Your task to perform on an android device: What's on my calendar tomorrow? Image 0: 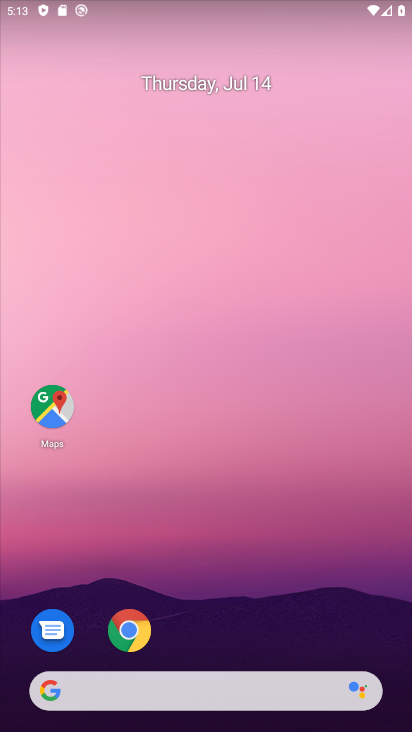
Step 0: press home button
Your task to perform on an android device: What's on my calendar tomorrow? Image 1: 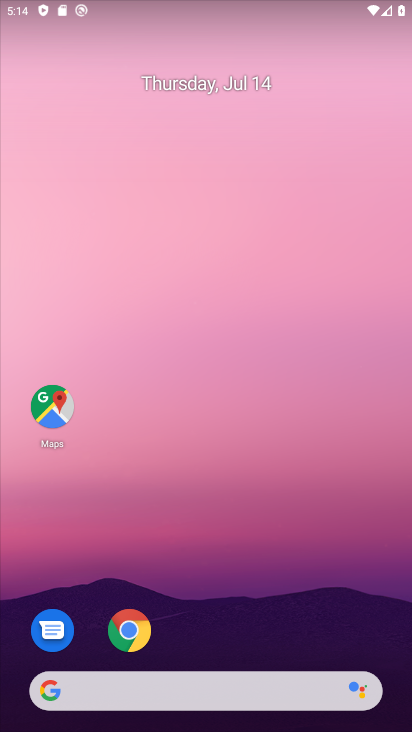
Step 1: press home button
Your task to perform on an android device: What's on my calendar tomorrow? Image 2: 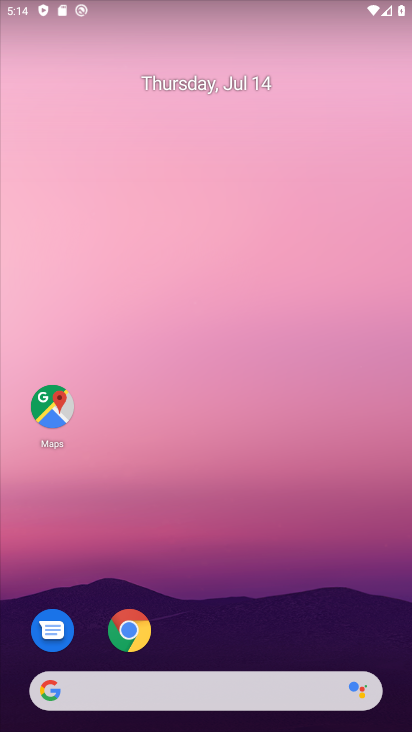
Step 2: drag from (260, 626) to (265, 100)
Your task to perform on an android device: What's on my calendar tomorrow? Image 3: 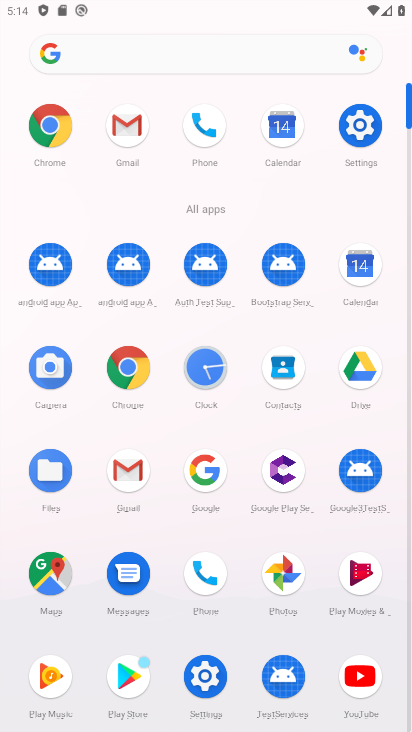
Step 3: click (367, 263)
Your task to perform on an android device: What's on my calendar tomorrow? Image 4: 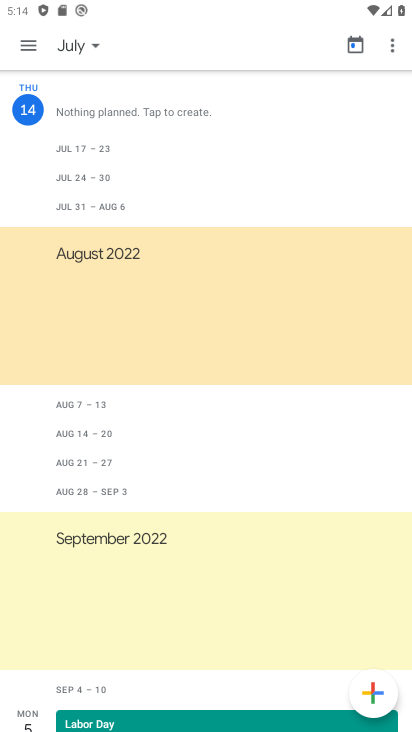
Step 4: click (96, 43)
Your task to perform on an android device: What's on my calendar tomorrow? Image 5: 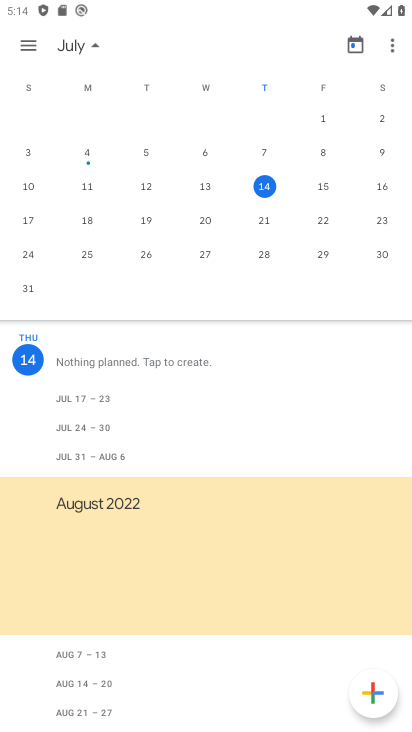
Step 5: click (326, 183)
Your task to perform on an android device: What's on my calendar tomorrow? Image 6: 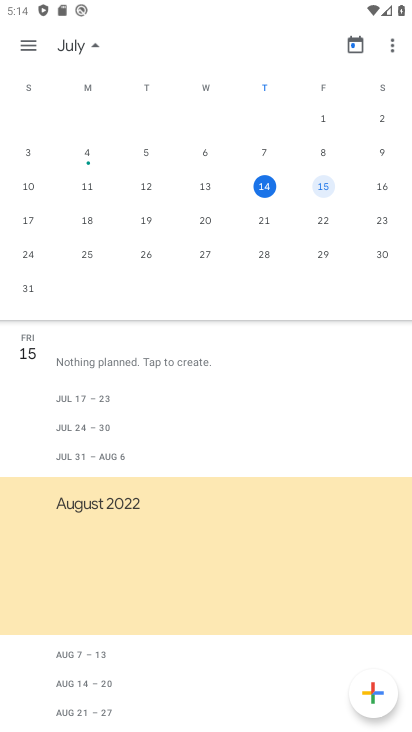
Step 6: task complete